Your task to perform on an android device: install app "Grab" Image 0: 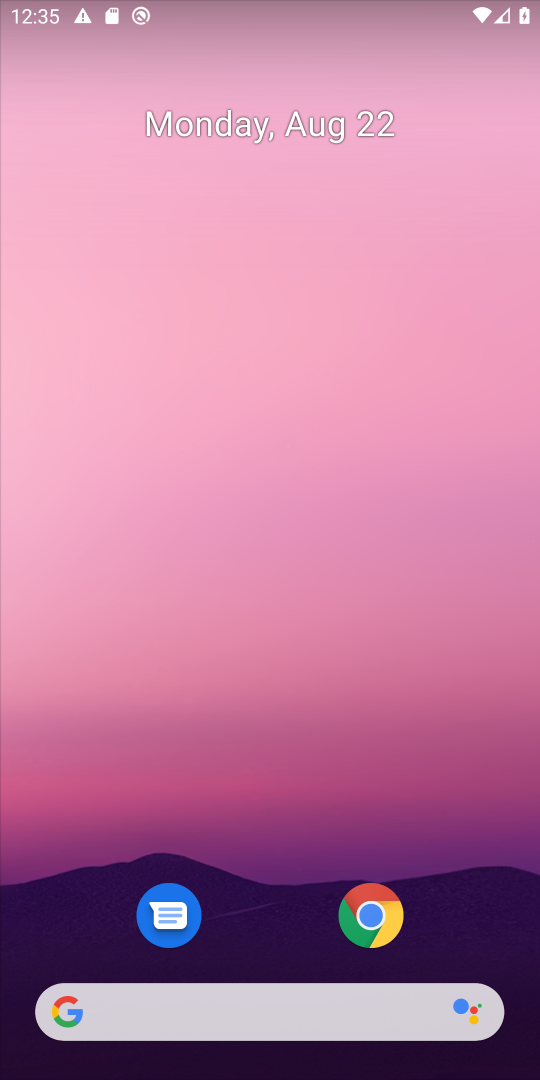
Step 0: drag from (266, 969) to (73, 586)
Your task to perform on an android device: install app "Grab" Image 1: 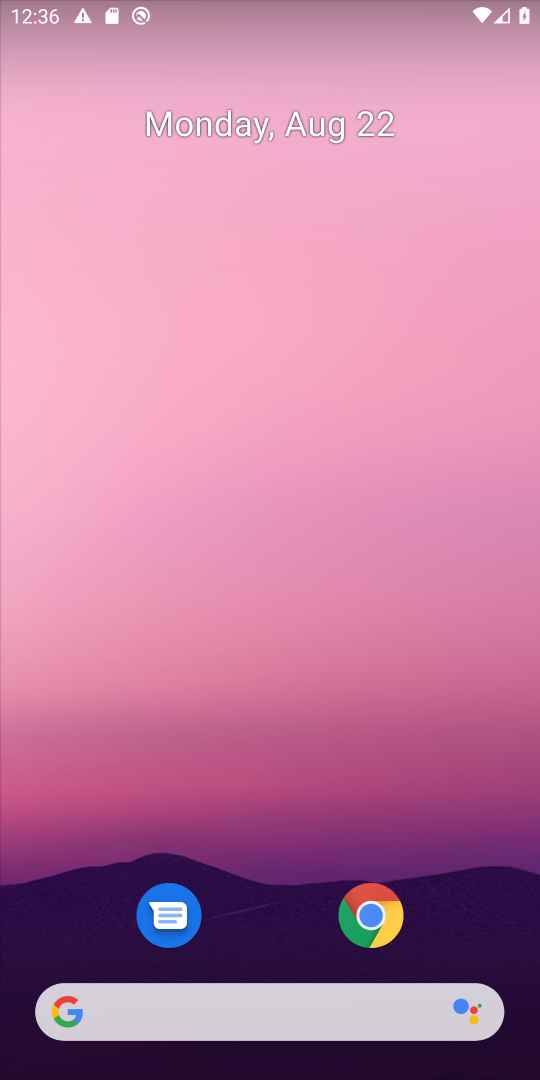
Step 1: drag from (303, 964) to (284, 74)
Your task to perform on an android device: install app "Grab" Image 2: 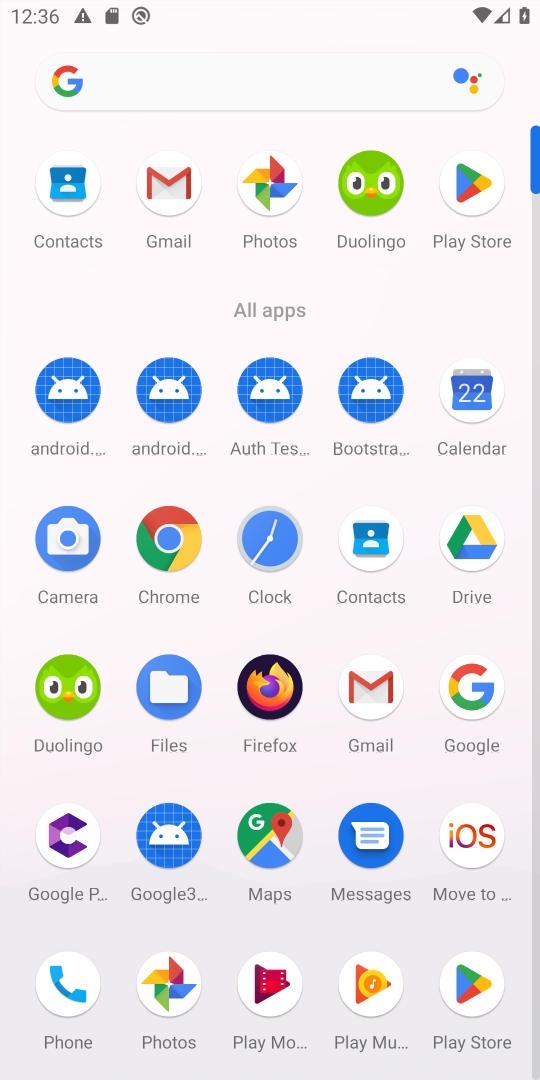
Step 2: click (475, 1000)
Your task to perform on an android device: install app "Grab" Image 3: 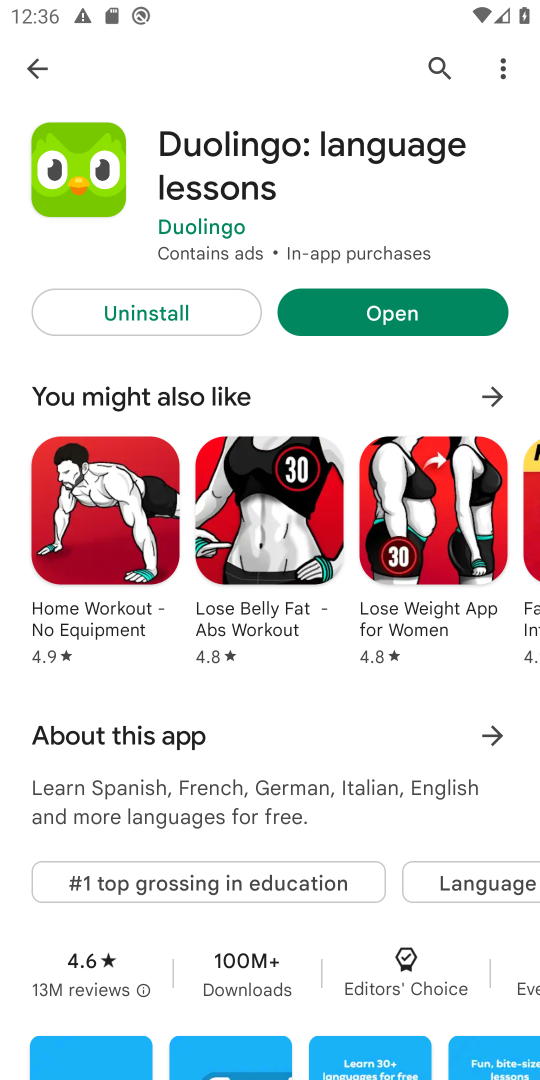
Step 3: click (28, 67)
Your task to perform on an android device: install app "Grab" Image 4: 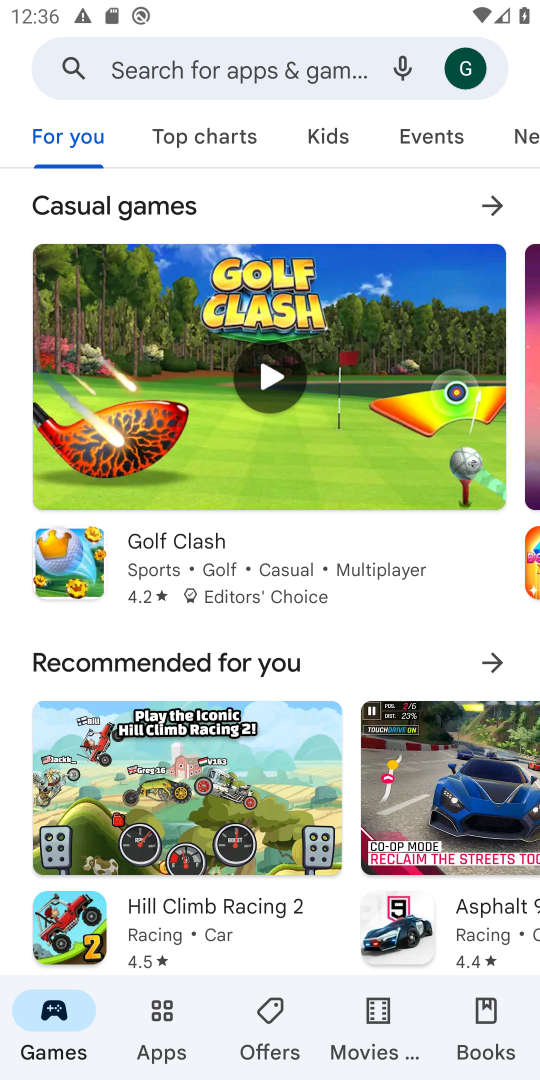
Step 4: click (221, 68)
Your task to perform on an android device: install app "Grab" Image 5: 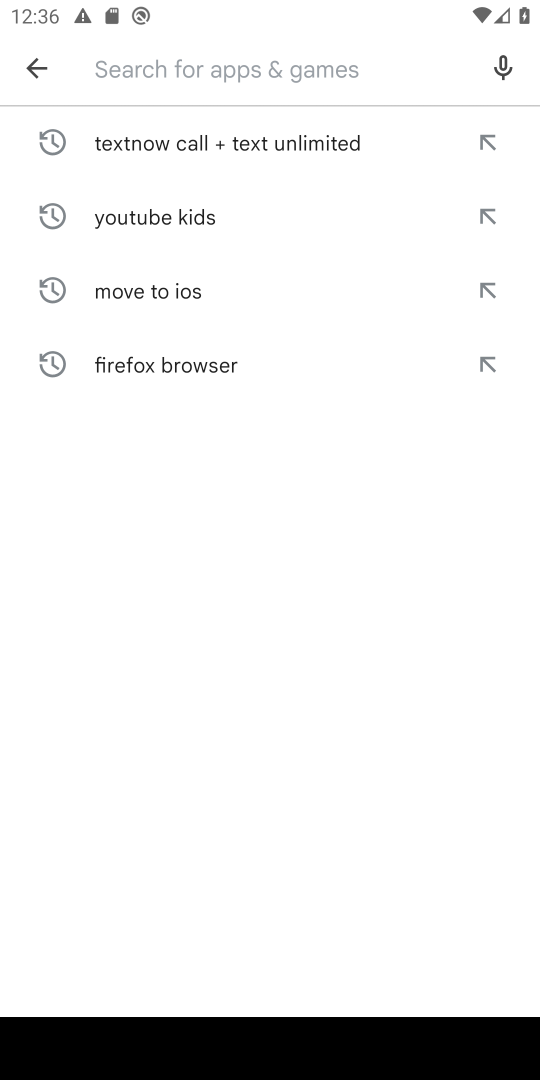
Step 5: type "Grab"
Your task to perform on an android device: install app "Grab" Image 6: 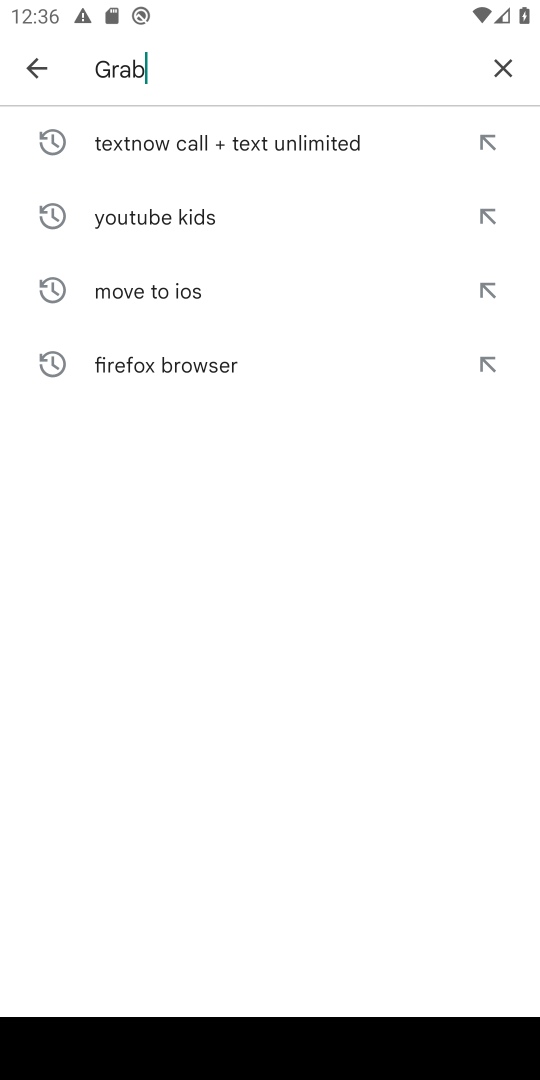
Step 6: type ""
Your task to perform on an android device: install app "Grab" Image 7: 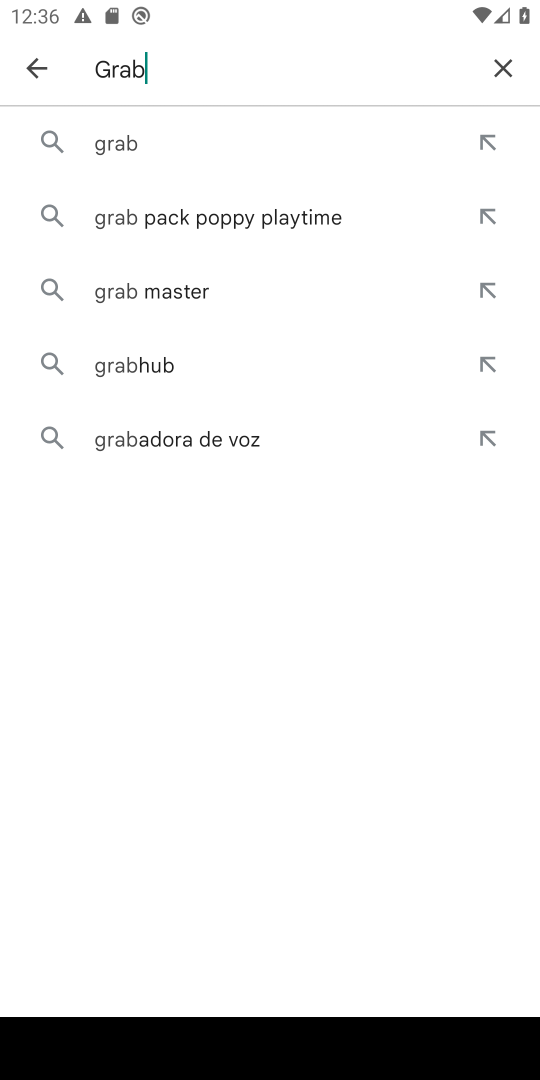
Step 7: click (106, 136)
Your task to perform on an android device: install app "Grab" Image 8: 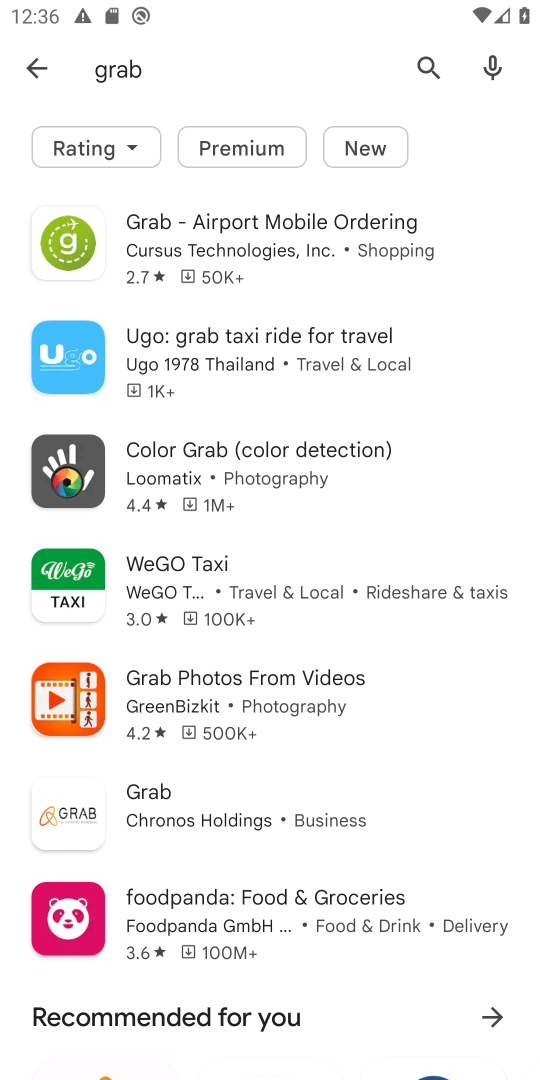
Step 8: click (185, 238)
Your task to perform on an android device: install app "Grab" Image 9: 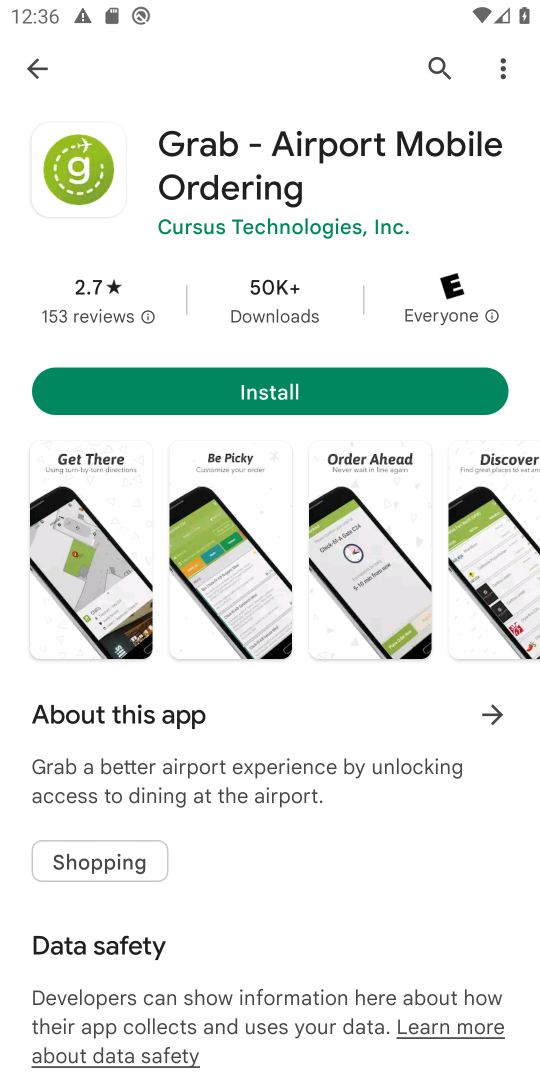
Step 9: click (334, 386)
Your task to perform on an android device: install app "Grab" Image 10: 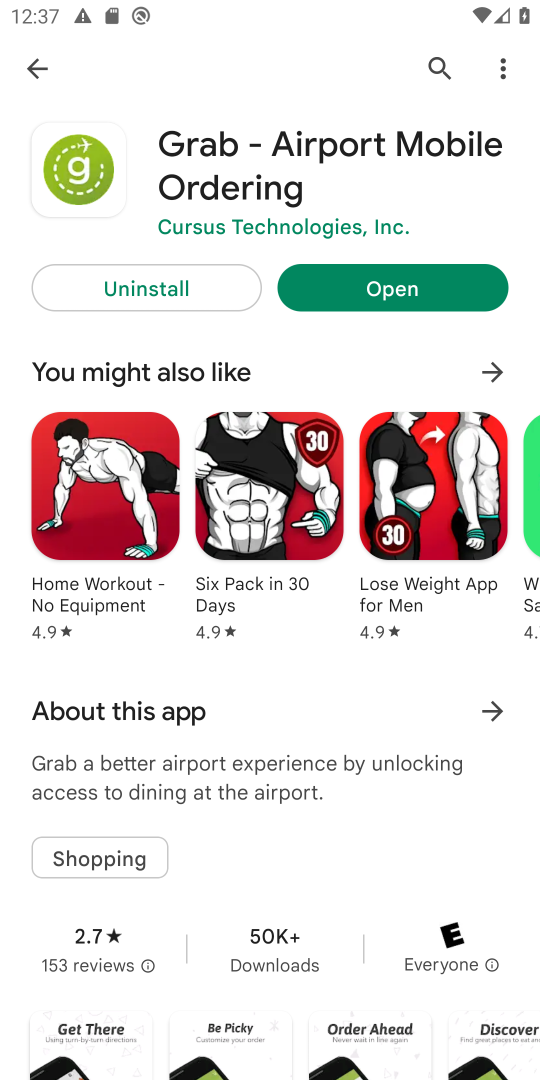
Step 10: click (428, 305)
Your task to perform on an android device: install app "Grab" Image 11: 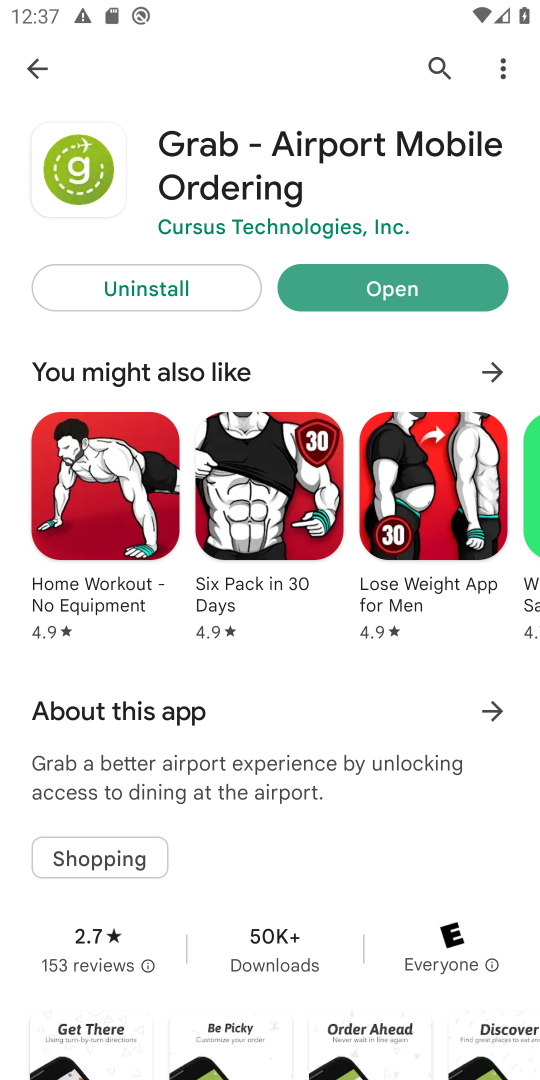
Step 11: task complete